Your task to perform on an android device: Search for Mexican restaurants on Maps Image 0: 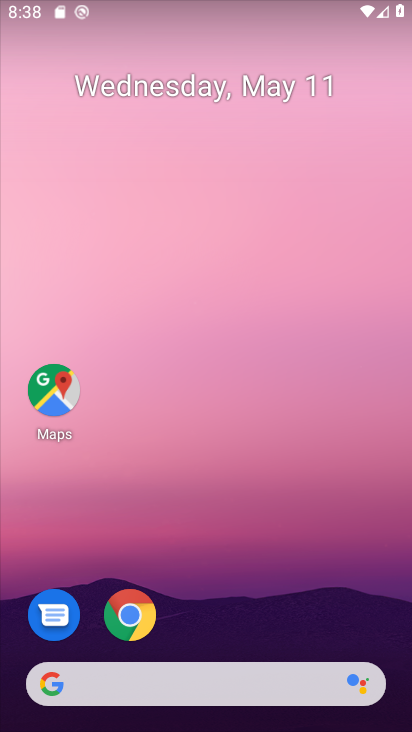
Step 0: drag from (295, 505) to (369, 61)
Your task to perform on an android device: Search for Mexican restaurants on Maps Image 1: 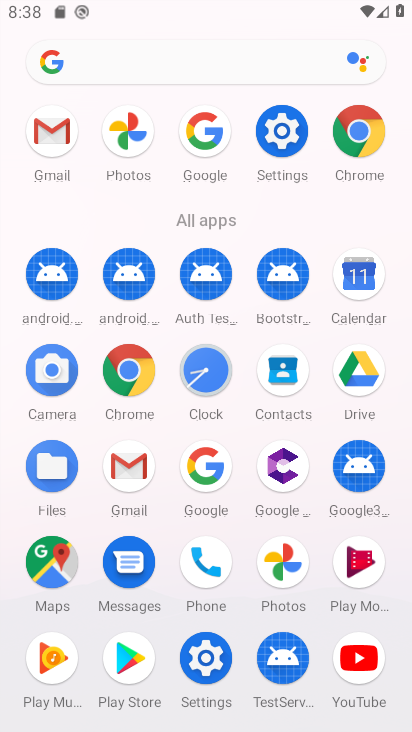
Step 1: click (54, 567)
Your task to perform on an android device: Search for Mexican restaurants on Maps Image 2: 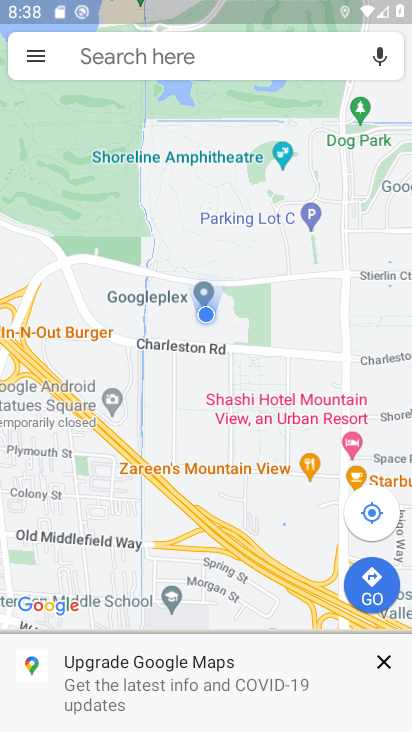
Step 2: click (210, 47)
Your task to perform on an android device: Search for Mexican restaurants on Maps Image 3: 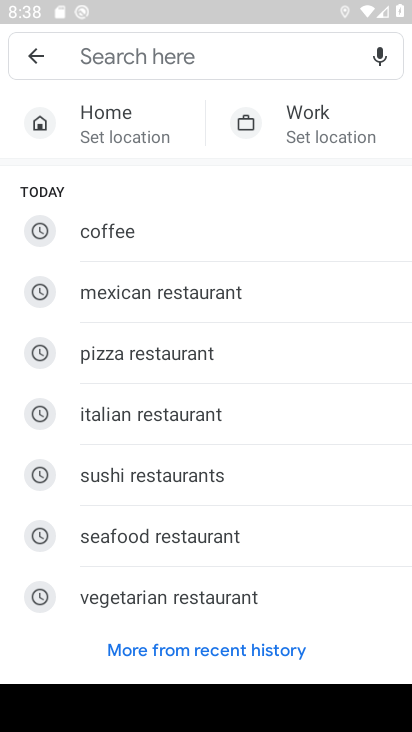
Step 3: type "mexican resturents"
Your task to perform on an android device: Search for Mexican restaurants on Maps Image 4: 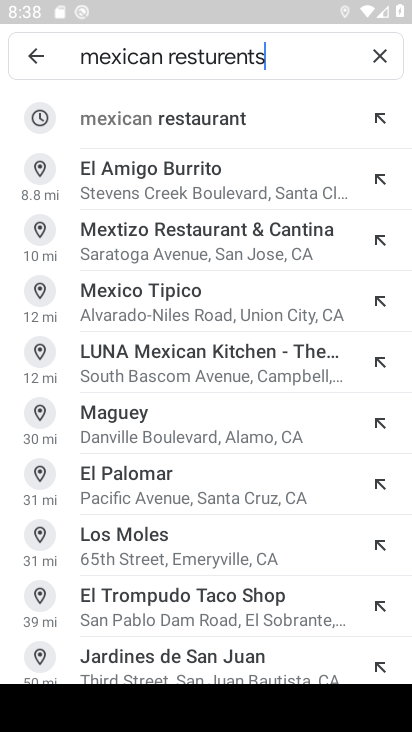
Step 4: click (166, 123)
Your task to perform on an android device: Search for Mexican restaurants on Maps Image 5: 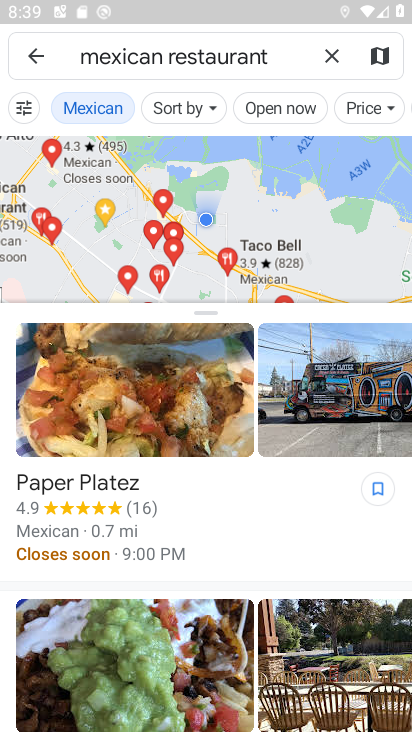
Step 5: task complete